Your task to perform on an android device: Go to Maps Image 0: 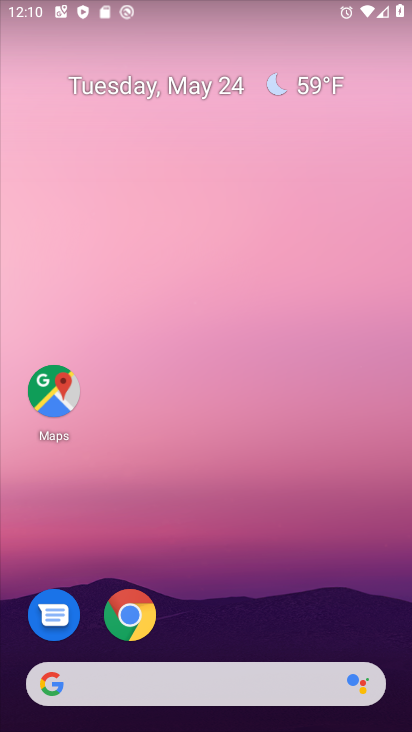
Step 0: drag from (271, 582) to (240, 51)
Your task to perform on an android device: Go to Maps Image 1: 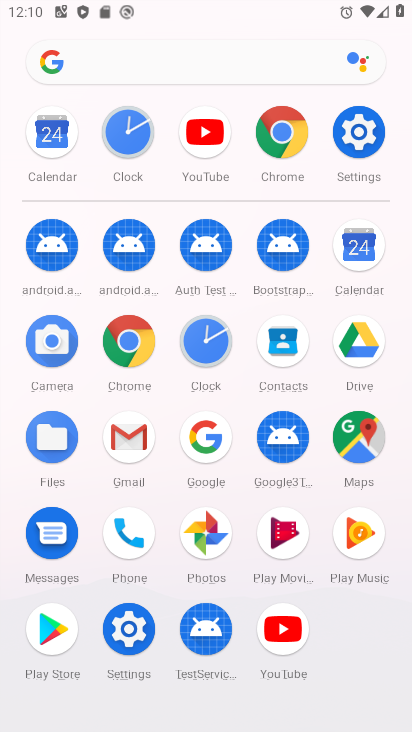
Step 1: click (347, 436)
Your task to perform on an android device: Go to Maps Image 2: 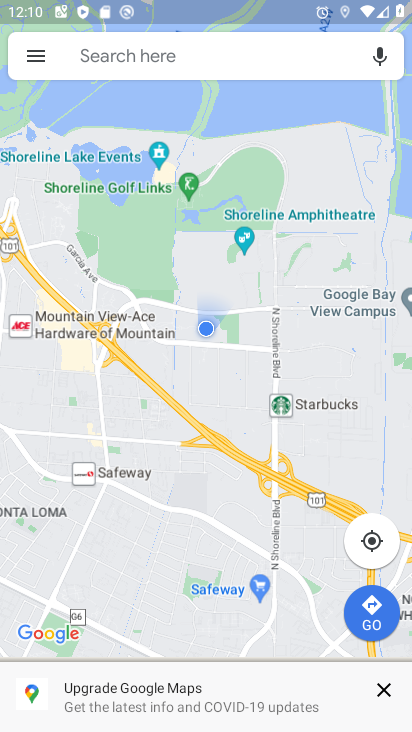
Step 2: task complete